Your task to perform on an android device: Open battery settings Image 0: 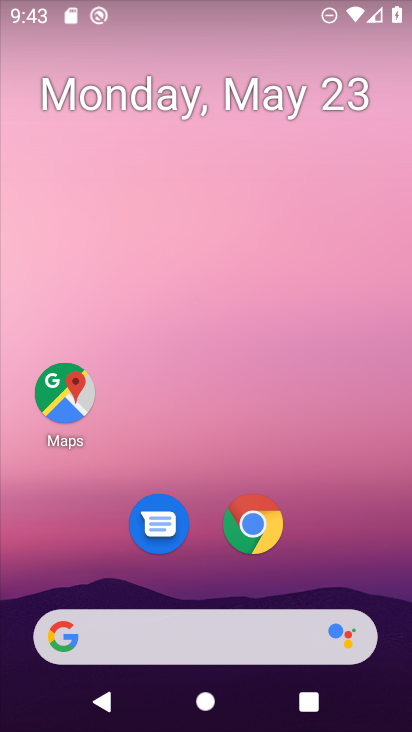
Step 0: drag from (329, 477) to (320, 28)
Your task to perform on an android device: Open battery settings Image 1: 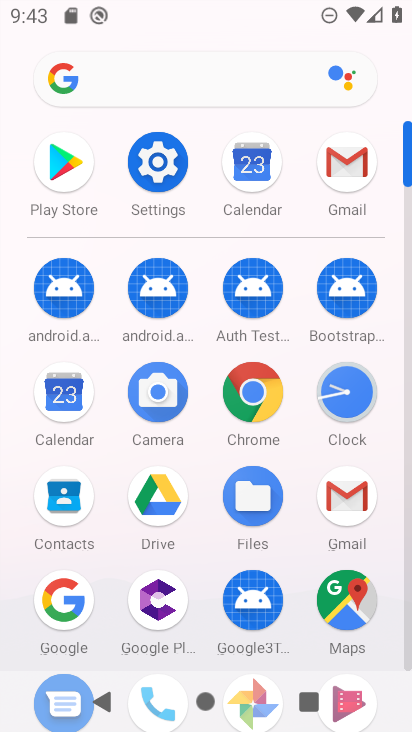
Step 1: click (169, 164)
Your task to perform on an android device: Open battery settings Image 2: 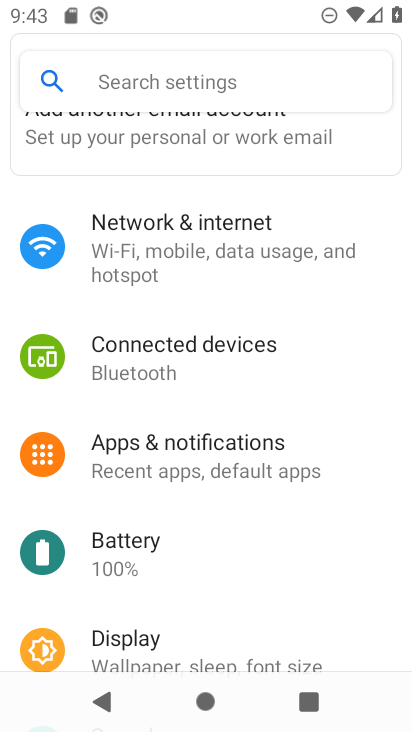
Step 2: click (149, 530)
Your task to perform on an android device: Open battery settings Image 3: 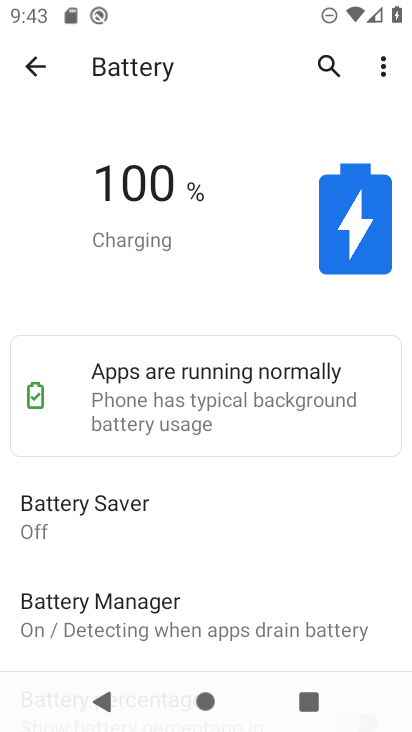
Step 3: task complete